Your task to perform on an android device: Go to internet settings Image 0: 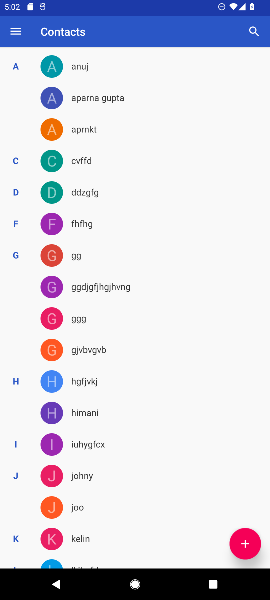
Step 0: press home button
Your task to perform on an android device: Go to internet settings Image 1: 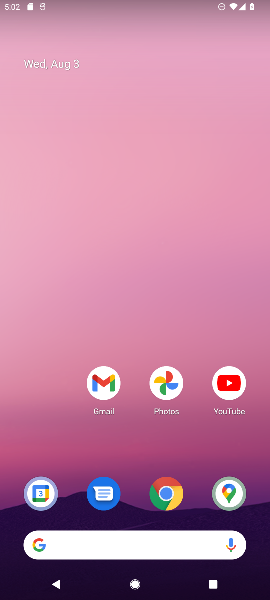
Step 1: drag from (64, 449) to (76, 116)
Your task to perform on an android device: Go to internet settings Image 2: 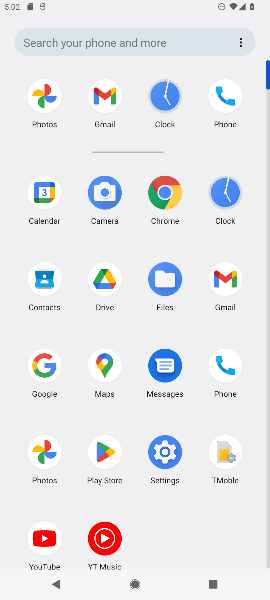
Step 2: click (167, 453)
Your task to perform on an android device: Go to internet settings Image 3: 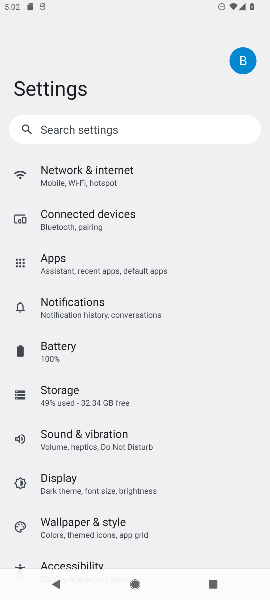
Step 3: drag from (211, 512) to (227, 395)
Your task to perform on an android device: Go to internet settings Image 4: 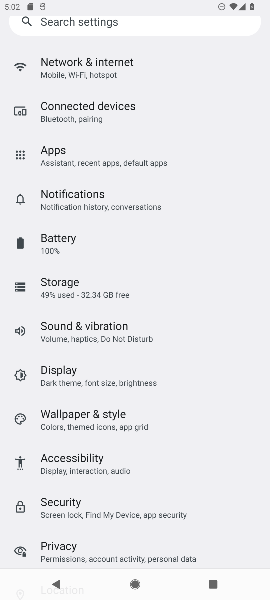
Step 4: drag from (234, 537) to (240, 404)
Your task to perform on an android device: Go to internet settings Image 5: 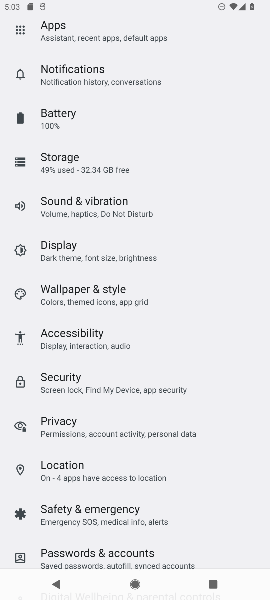
Step 5: drag from (224, 497) to (226, 385)
Your task to perform on an android device: Go to internet settings Image 6: 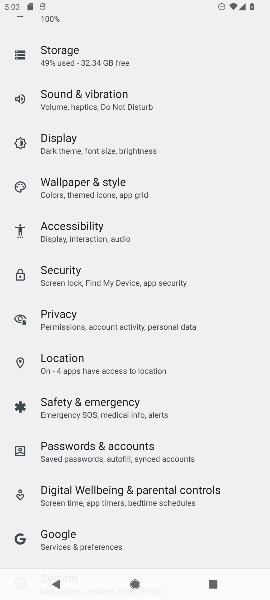
Step 6: drag from (227, 539) to (227, 418)
Your task to perform on an android device: Go to internet settings Image 7: 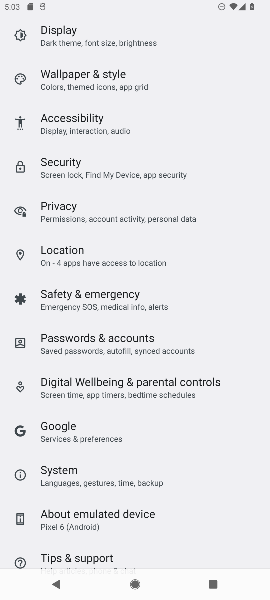
Step 7: drag from (207, 509) to (217, 375)
Your task to perform on an android device: Go to internet settings Image 8: 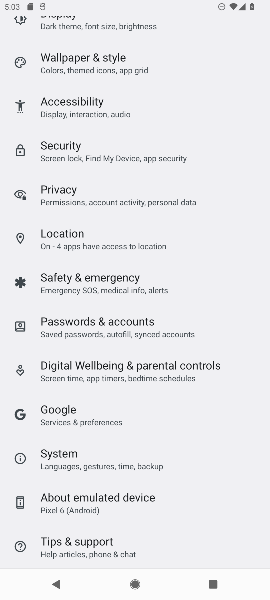
Step 8: drag from (235, 256) to (238, 361)
Your task to perform on an android device: Go to internet settings Image 9: 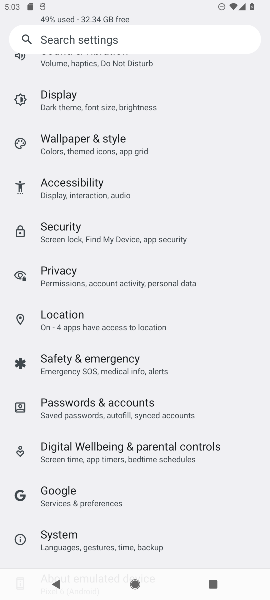
Step 9: drag from (234, 248) to (227, 358)
Your task to perform on an android device: Go to internet settings Image 10: 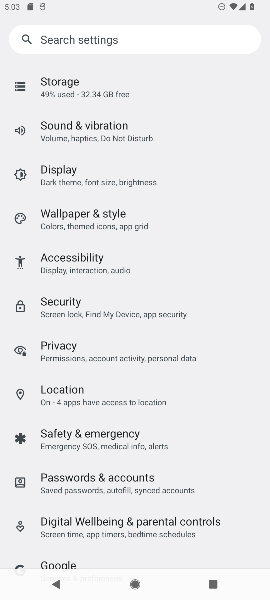
Step 10: drag from (207, 251) to (212, 393)
Your task to perform on an android device: Go to internet settings Image 11: 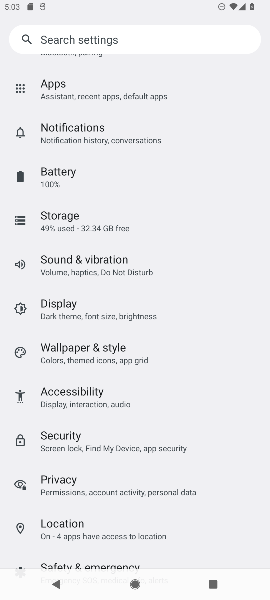
Step 11: drag from (213, 181) to (216, 374)
Your task to perform on an android device: Go to internet settings Image 12: 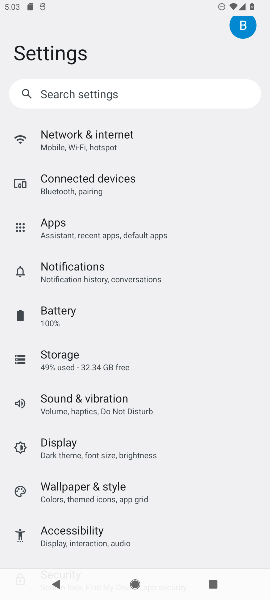
Step 12: click (138, 146)
Your task to perform on an android device: Go to internet settings Image 13: 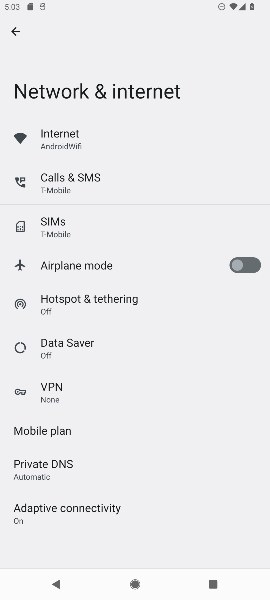
Step 13: task complete